Your task to perform on an android device: open sync settings in chrome Image 0: 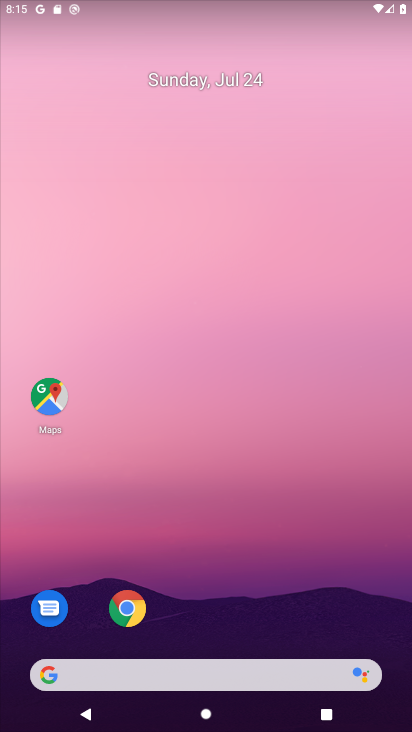
Step 0: click (133, 611)
Your task to perform on an android device: open sync settings in chrome Image 1: 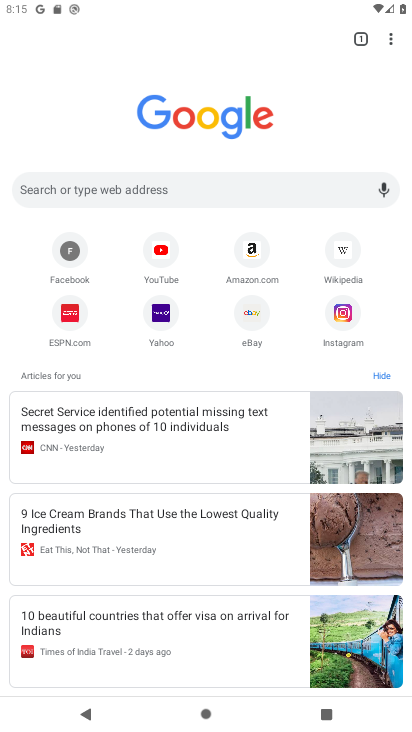
Step 1: click (395, 49)
Your task to perform on an android device: open sync settings in chrome Image 2: 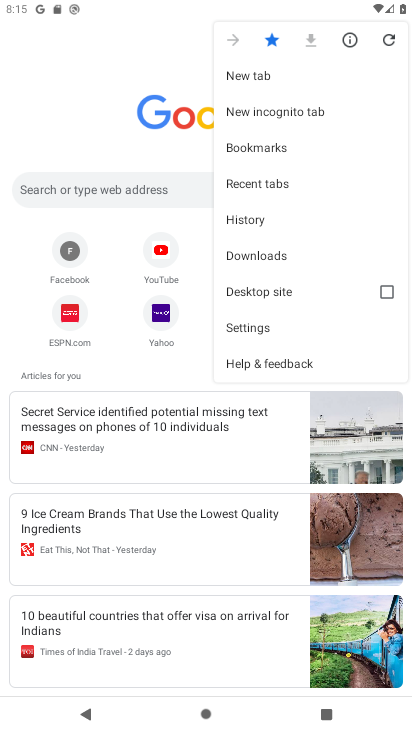
Step 2: click (248, 327)
Your task to perform on an android device: open sync settings in chrome Image 3: 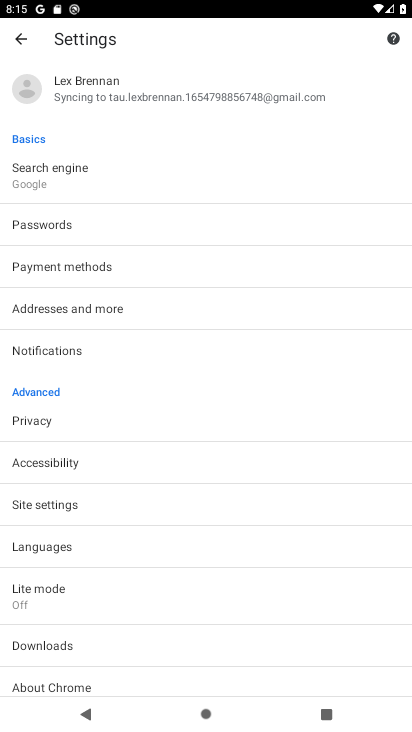
Step 3: click (123, 98)
Your task to perform on an android device: open sync settings in chrome Image 4: 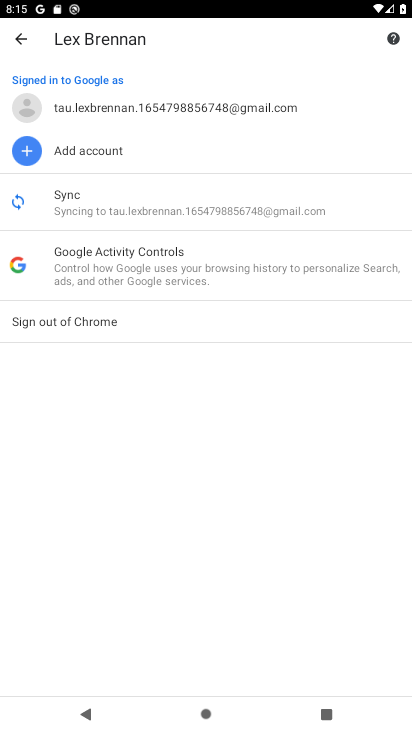
Step 4: click (106, 199)
Your task to perform on an android device: open sync settings in chrome Image 5: 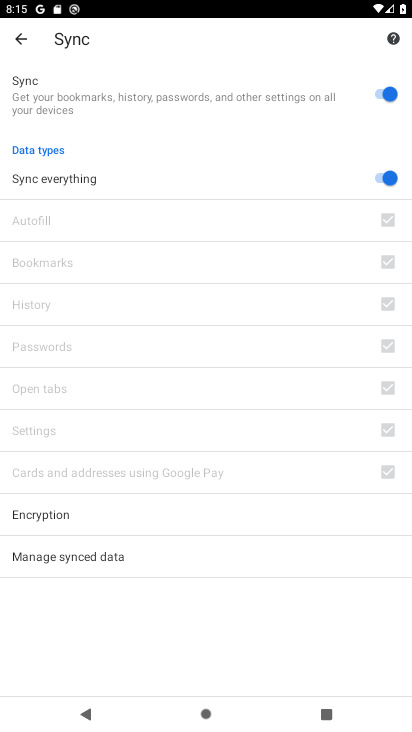
Step 5: task complete